Your task to perform on an android device: What is the recent news? Image 0: 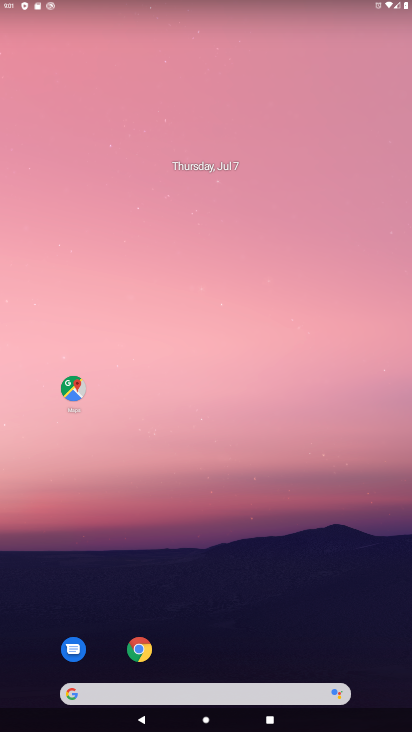
Step 0: drag from (242, 683) to (260, 99)
Your task to perform on an android device: What is the recent news? Image 1: 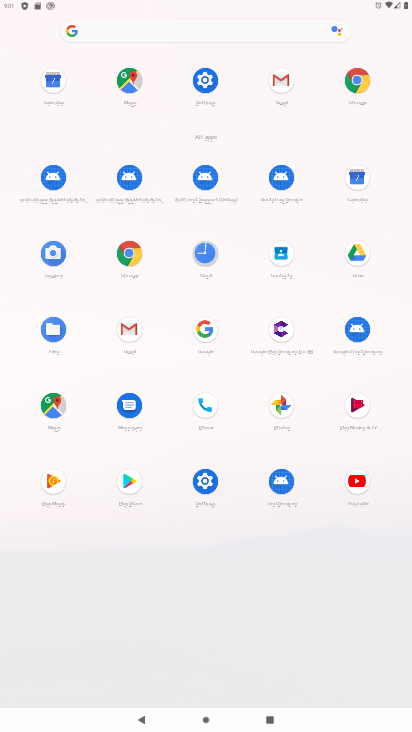
Step 1: click (137, 258)
Your task to perform on an android device: What is the recent news? Image 2: 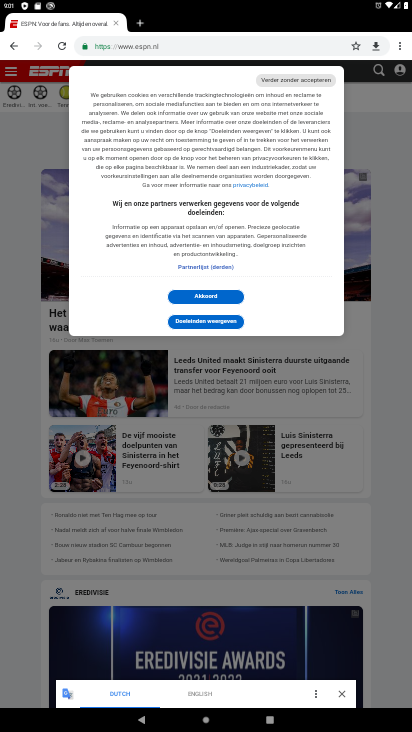
Step 2: click (238, 40)
Your task to perform on an android device: What is the recent news? Image 3: 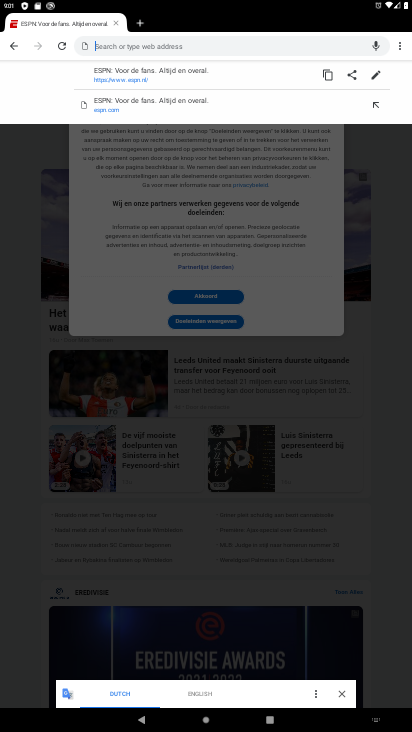
Step 3: type "recent news"
Your task to perform on an android device: What is the recent news? Image 4: 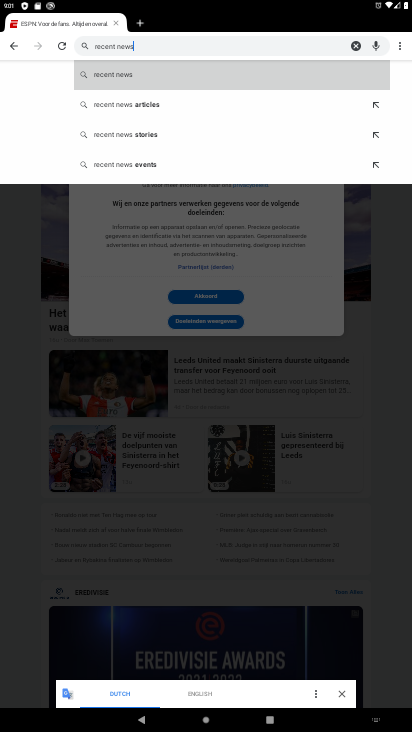
Step 4: click (134, 66)
Your task to perform on an android device: What is the recent news? Image 5: 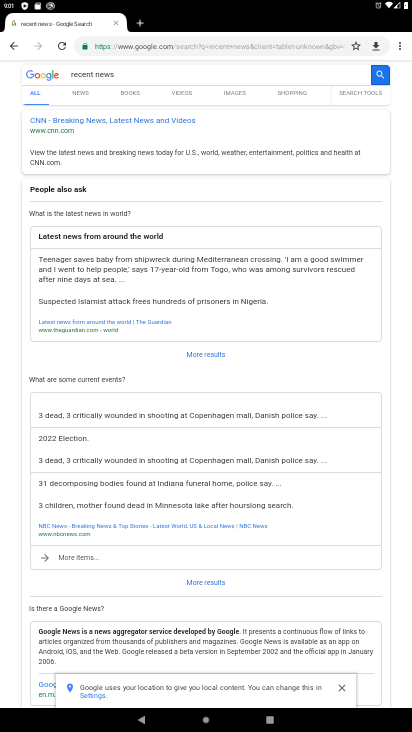
Step 5: task complete